Your task to perform on an android device: turn on priority inbox in the gmail app Image 0: 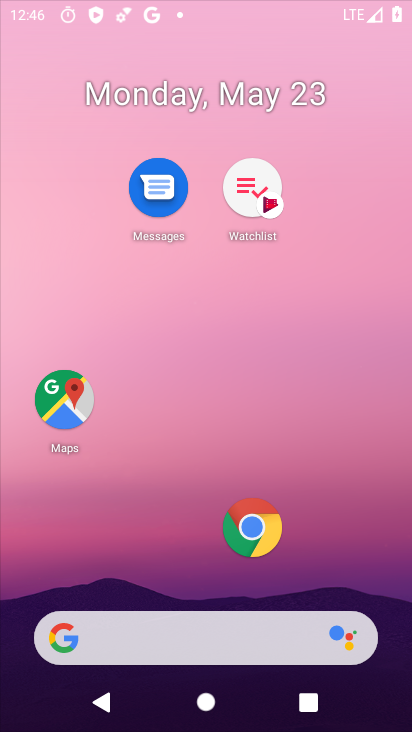
Step 0: click (195, 585)
Your task to perform on an android device: turn on priority inbox in the gmail app Image 1: 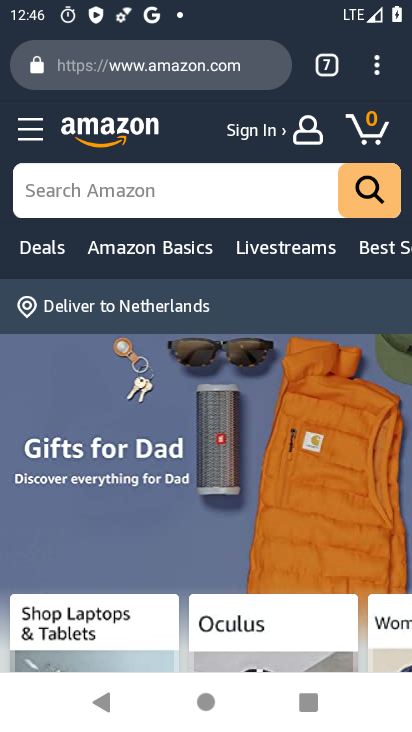
Step 1: press back button
Your task to perform on an android device: turn on priority inbox in the gmail app Image 2: 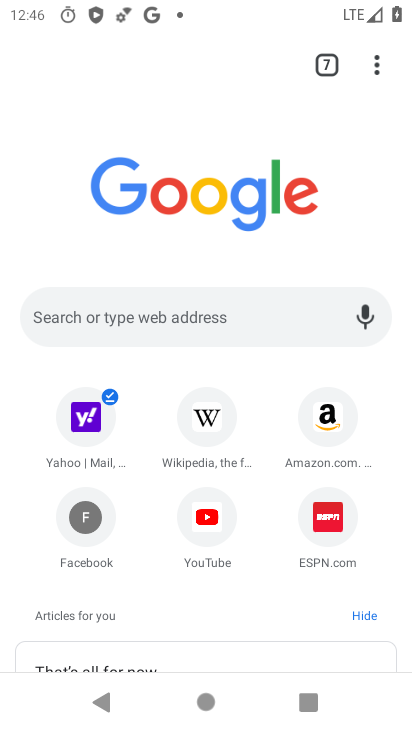
Step 2: press home button
Your task to perform on an android device: turn on priority inbox in the gmail app Image 3: 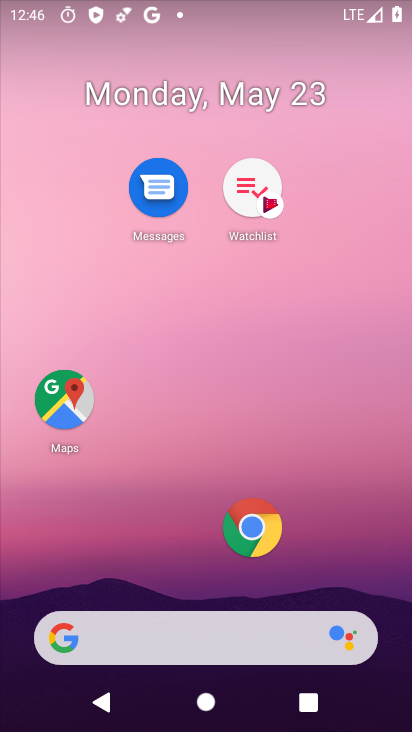
Step 3: drag from (304, 677) to (238, 268)
Your task to perform on an android device: turn on priority inbox in the gmail app Image 4: 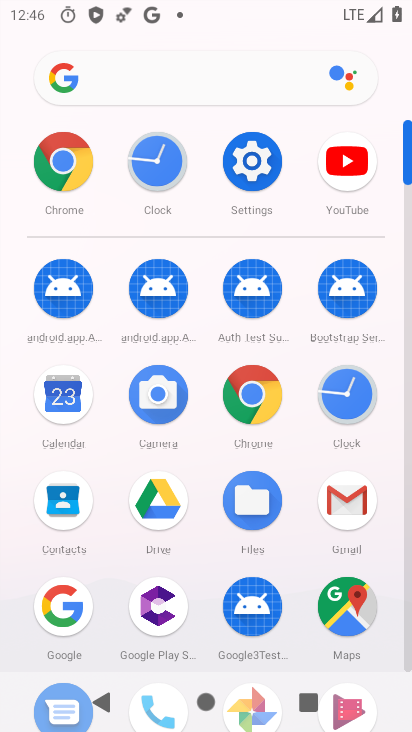
Step 4: click (350, 497)
Your task to perform on an android device: turn on priority inbox in the gmail app Image 5: 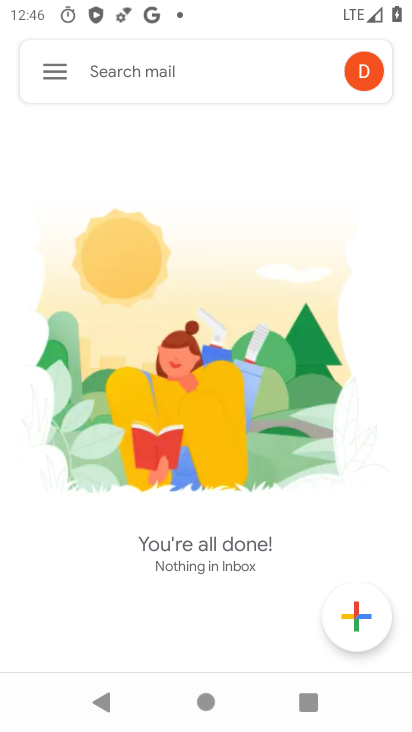
Step 5: click (54, 71)
Your task to perform on an android device: turn on priority inbox in the gmail app Image 6: 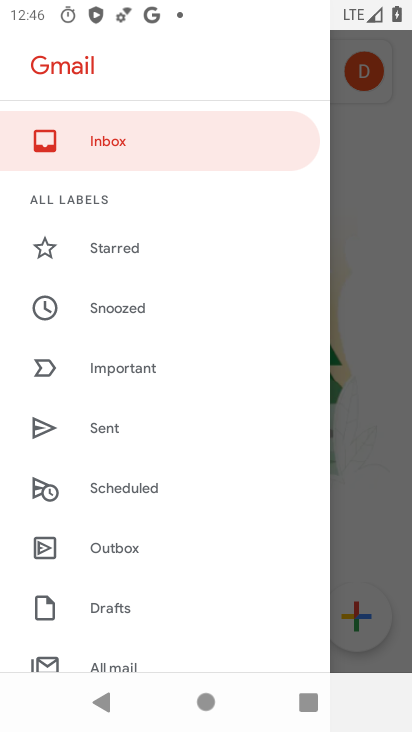
Step 6: drag from (120, 559) to (119, 312)
Your task to perform on an android device: turn on priority inbox in the gmail app Image 7: 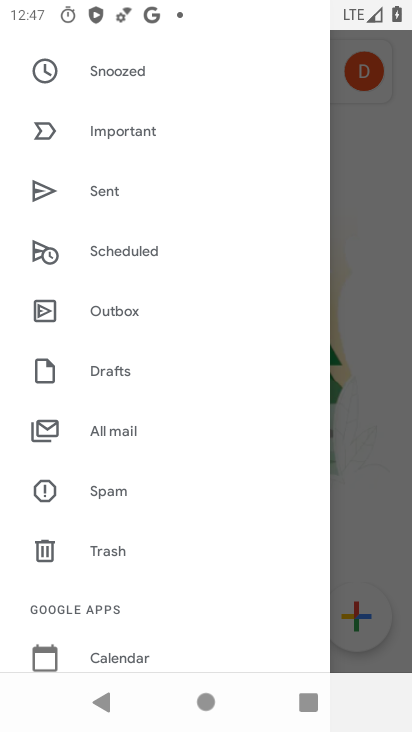
Step 7: drag from (115, 547) to (168, 291)
Your task to perform on an android device: turn on priority inbox in the gmail app Image 8: 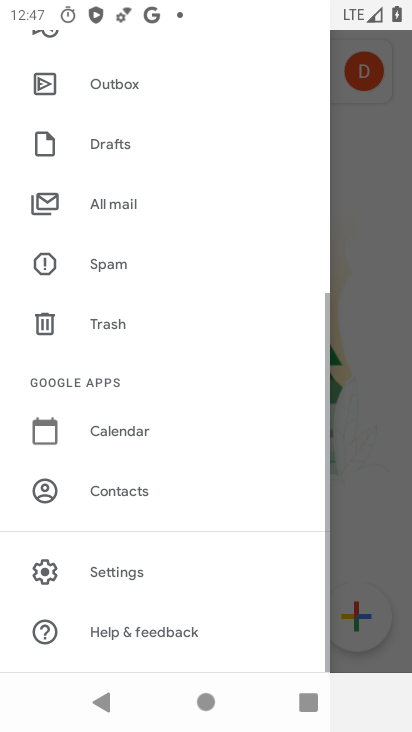
Step 8: drag from (132, 485) to (132, 208)
Your task to perform on an android device: turn on priority inbox in the gmail app Image 9: 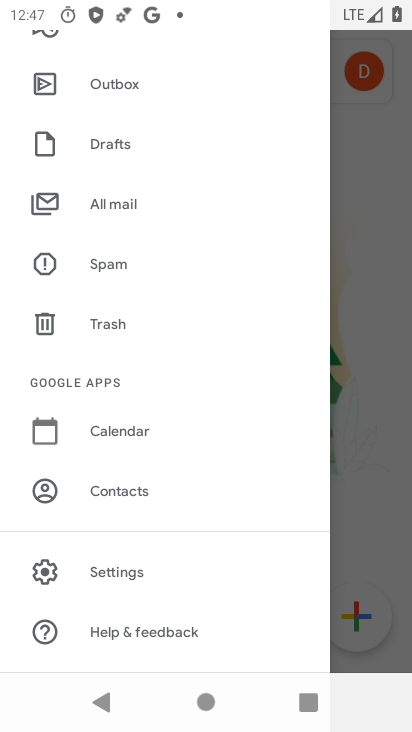
Step 9: click (118, 639)
Your task to perform on an android device: turn on priority inbox in the gmail app Image 10: 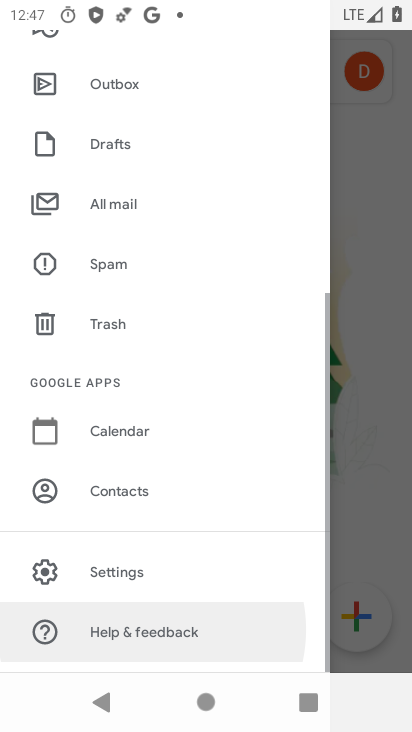
Step 10: click (118, 639)
Your task to perform on an android device: turn on priority inbox in the gmail app Image 11: 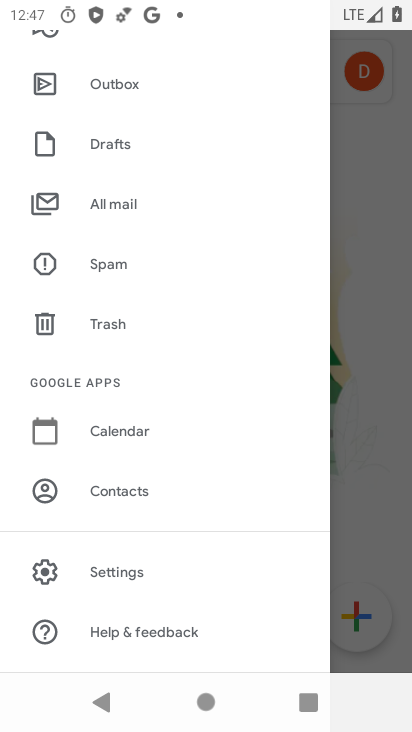
Step 11: click (109, 577)
Your task to perform on an android device: turn on priority inbox in the gmail app Image 12: 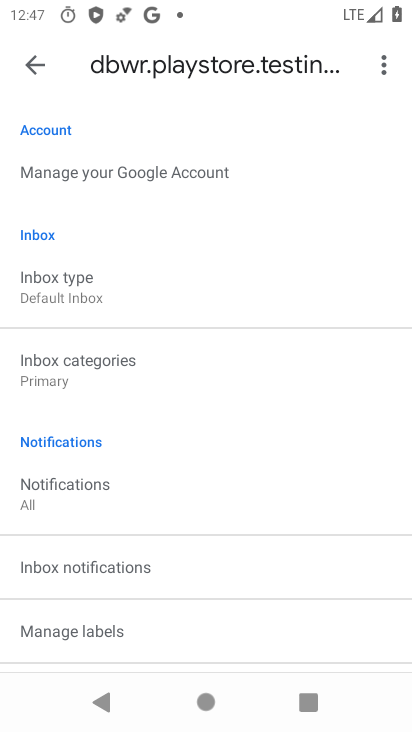
Step 12: click (43, 287)
Your task to perform on an android device: turn on priority inbox in the gmail app Image 13: 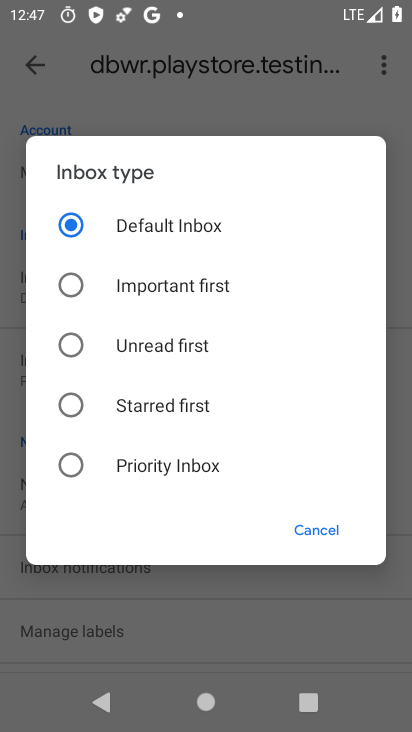
Step 13: click (68, 465)
Your task to perform on an android device: turn on priority inbox in the gmail app Image 14: 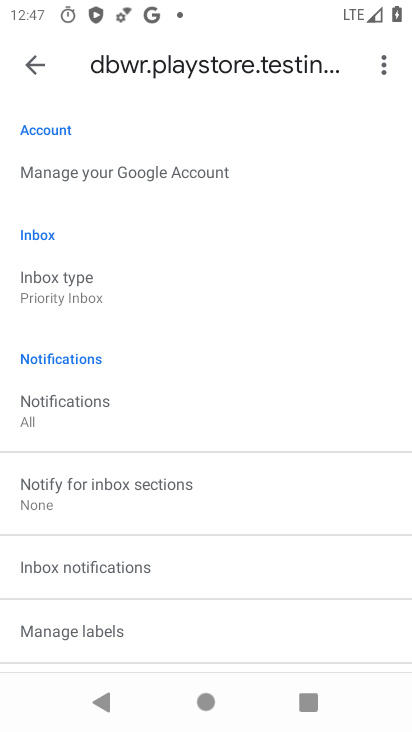
Step 14: task complete